Your task to perform on an android device: Open Google Chrome Image 0: 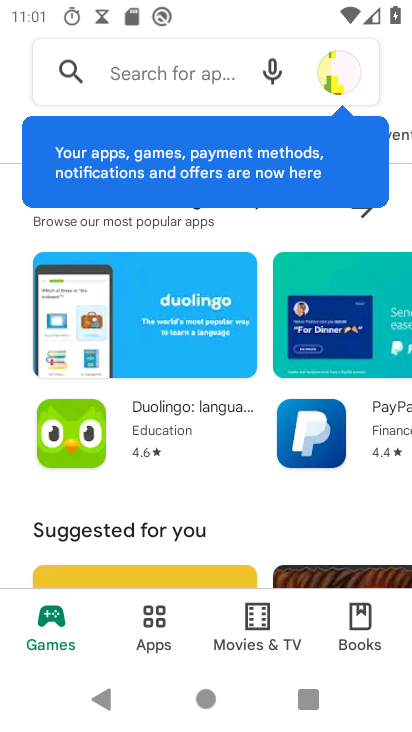
Step 0: press home button
Your task to perform on an android device: Open Google Chrome Image 1: 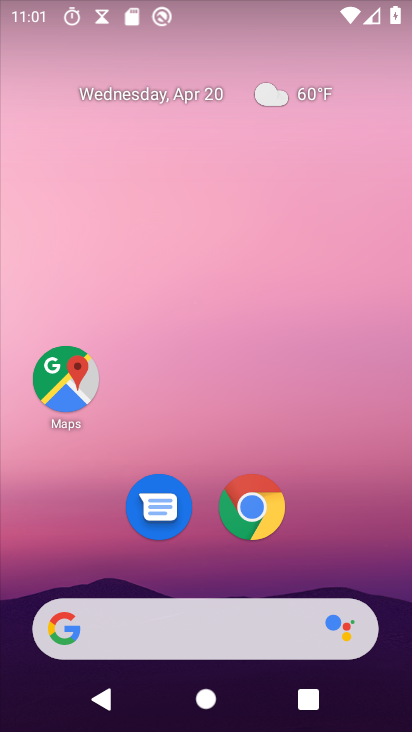
Step 1: click (249, 505)
Your task to perform on an android device: Open Google Chrome Image 2: 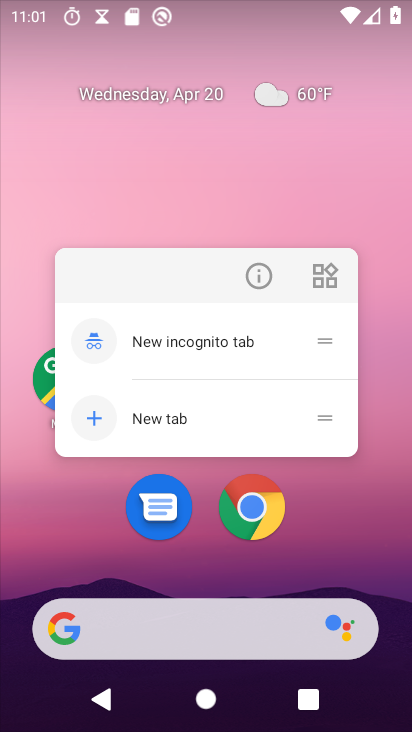
Step 2: click (258, 288)
Your task to perform on an android device: Open Google Chrome Image 3: 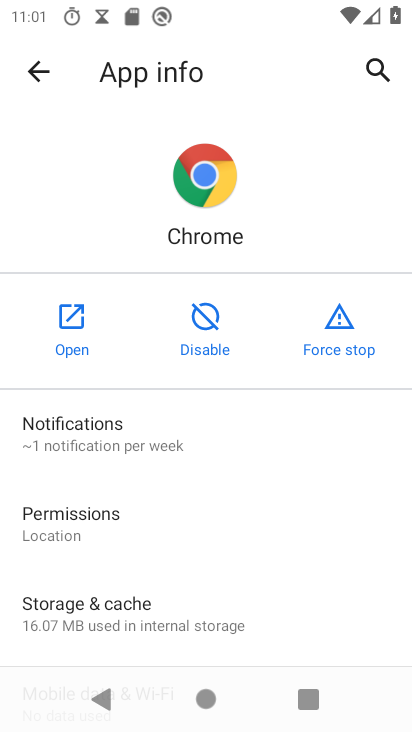
Step 3: task complete